Your task to perform on an android device: check storage Image 0: 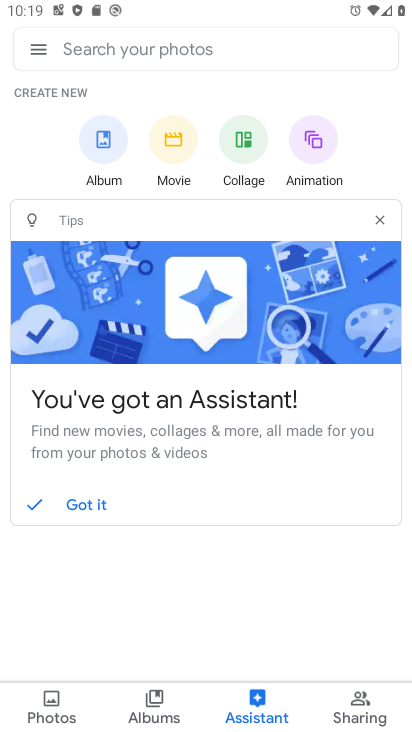
Step 0: press home button
Your task to perform on an android device: check storage Image 1: 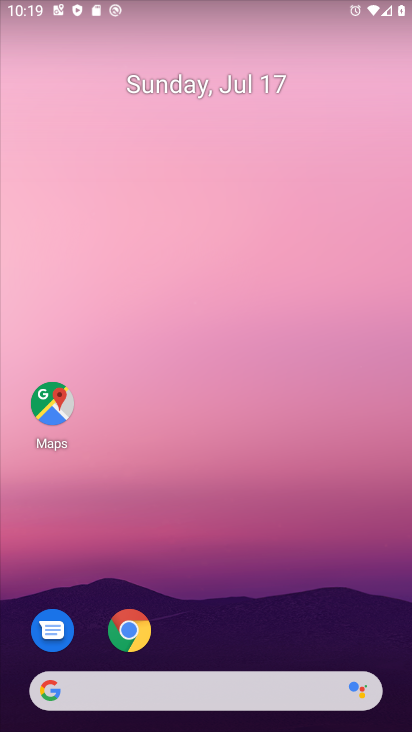
Step 1: drag from (303, 583) to (314, 49)
Your task to perform on an android device: check storage Image 2: 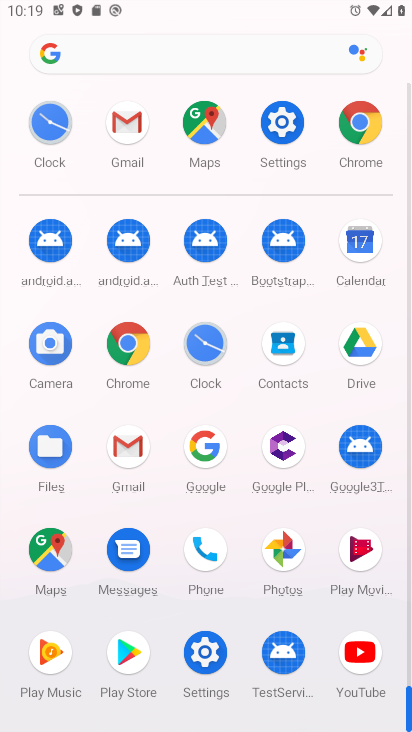
Step 2: click (278, 119)
Your task to perform on an android device: check storage Image 3: 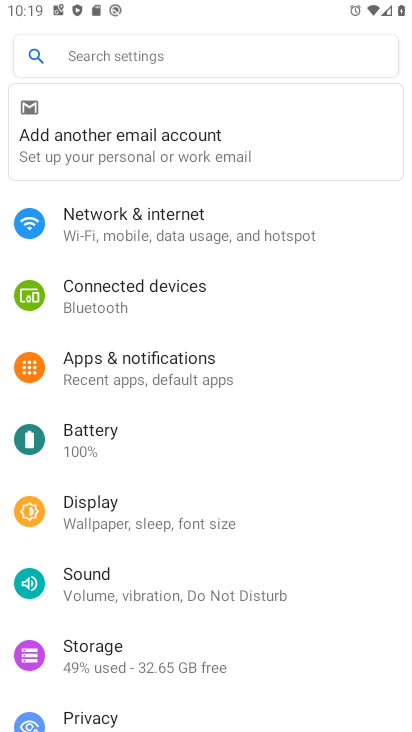
Step 3: drag from (313, 537) to (312, 362)
Your task to perform on an android device: check storage Image 4: 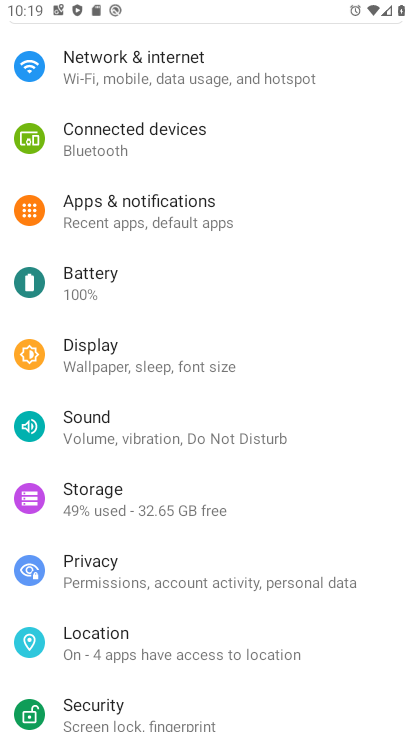
Step 4: drag from (333, 515) to (337, 313)
Your task to perform on an android device: check storage Image 5: 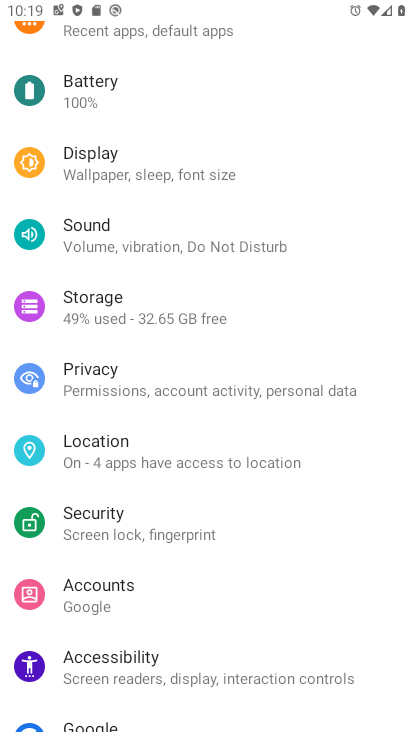
Step 5: drag from (318, 533) to (325, 336)
Your task to perform on an android device: check storage Image 6: 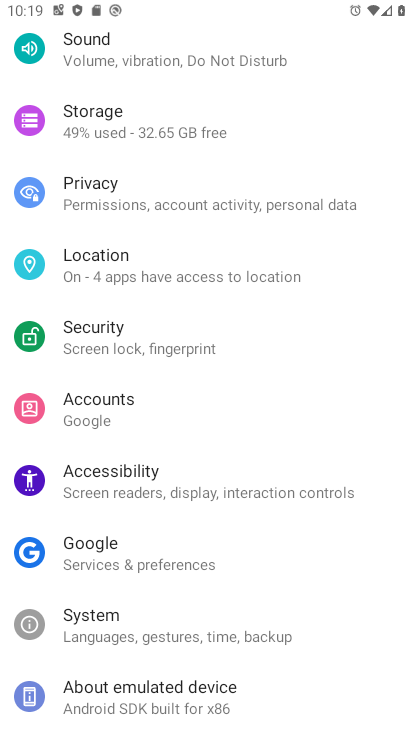
Step 6: drag from (343, 564) to (341, 375)
Your task to perform on an android device: check storage Image 7: 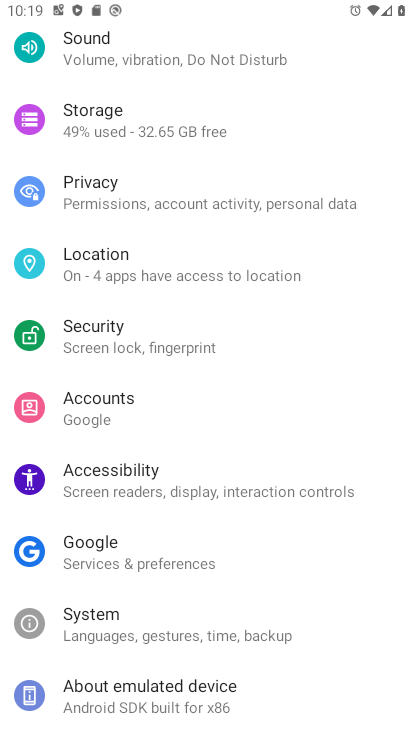
Step 7: drag from (337, 271) to (334, 412)
Your task to perform on an android device: check storage Image 8: 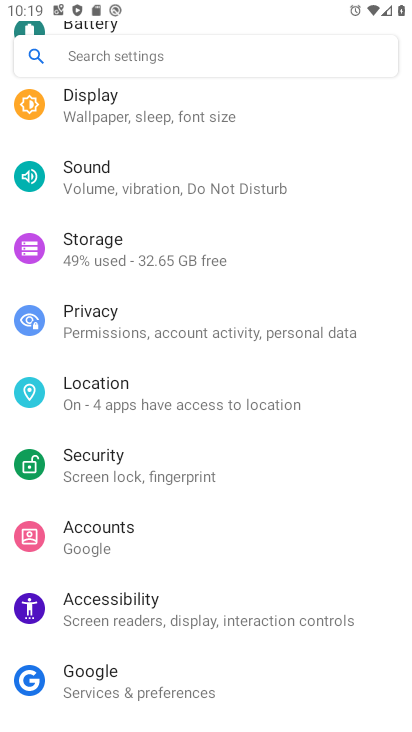
Step 8: drag from (339, 169) to (344, 356)
Your task to perform on an android device: check storage Image 9: 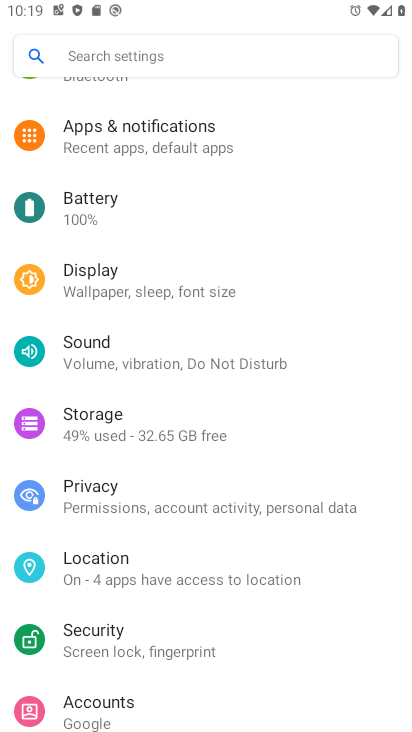
Step 9: drag from (327, 167) to (326, 347)
Your task to perform on an android device: check storage Image 10: 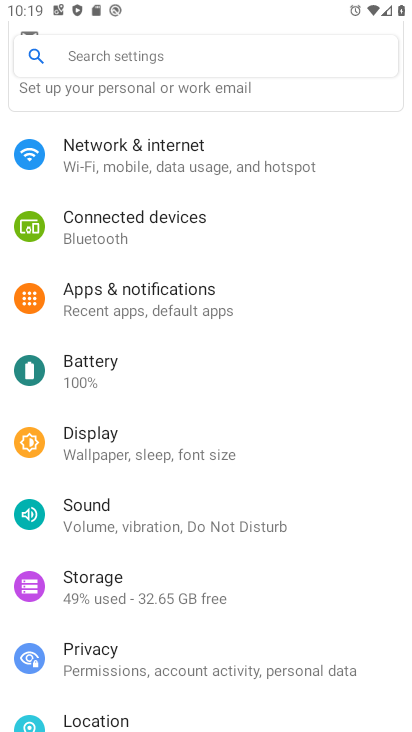
Step 10: drag from (331, 260) to (331, 431)
Your task to perform on an android device: check storage Image 11: 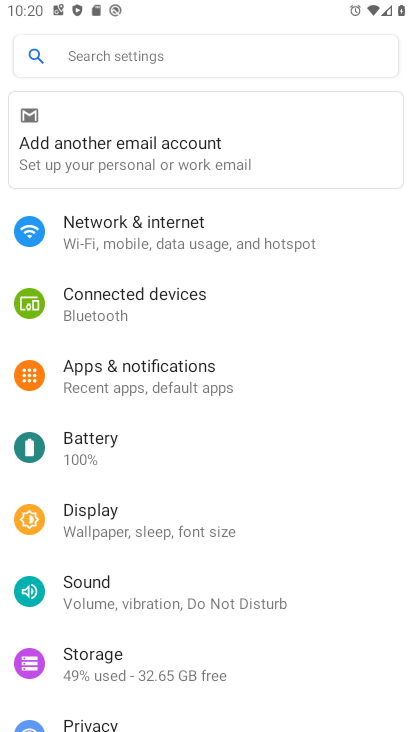
Step 11: drag from (330, 619) to (331, 481)
Your task to perform on an android device: check storage Image 12: 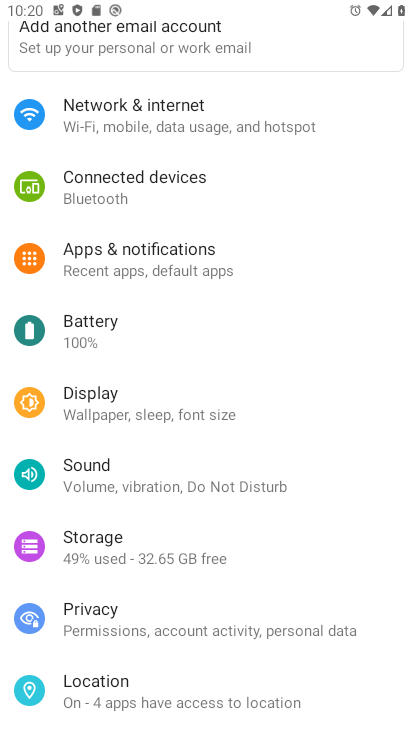
Step 12: click (198, 548)
Your task to perform on an android device: check storage Image 13: 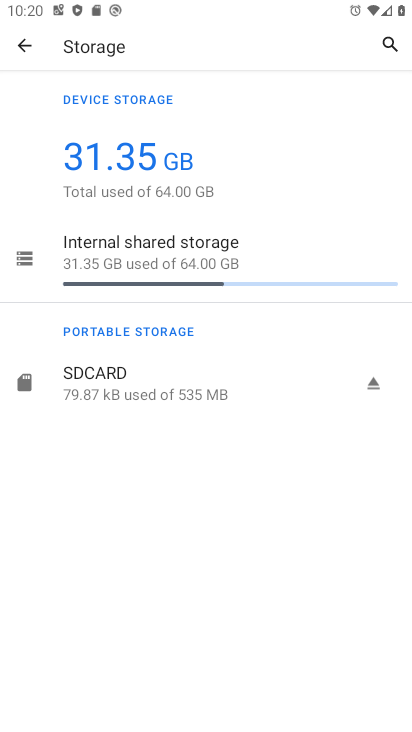
Step 13: task complete